Your task to perform on an android device: Clear the shopping cart on bestbuy.com. Add acer predator to the cart on bestbuy.com, then select checkout. Image 0: 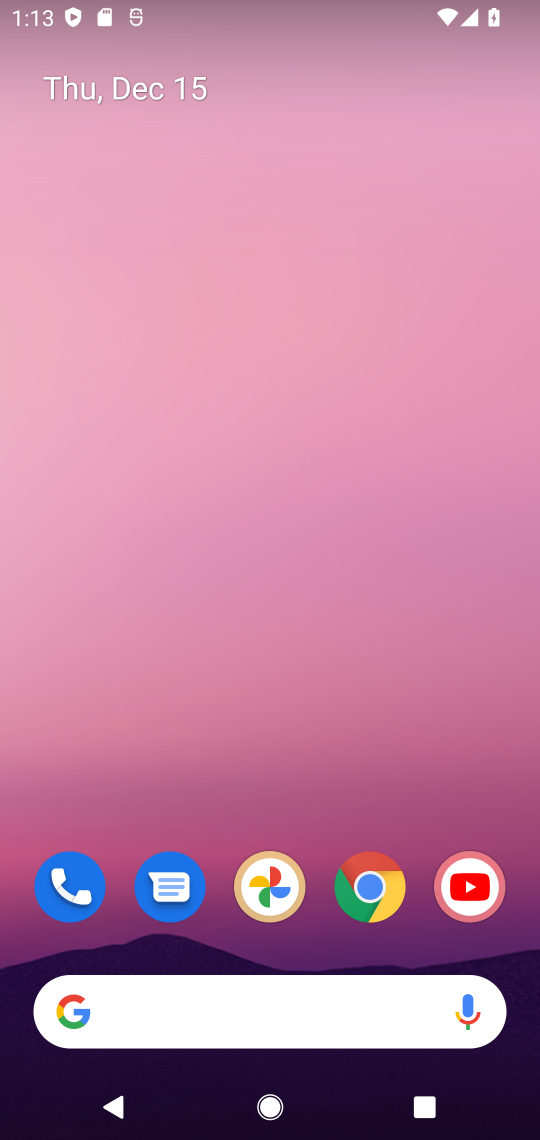
Step 0: click (373, 909)
Your task to perform on an android device: Clear the shopping cart on bestbuy.com. Add acer predator to the cart on bestbuy.com, then select checkout. Image 1: 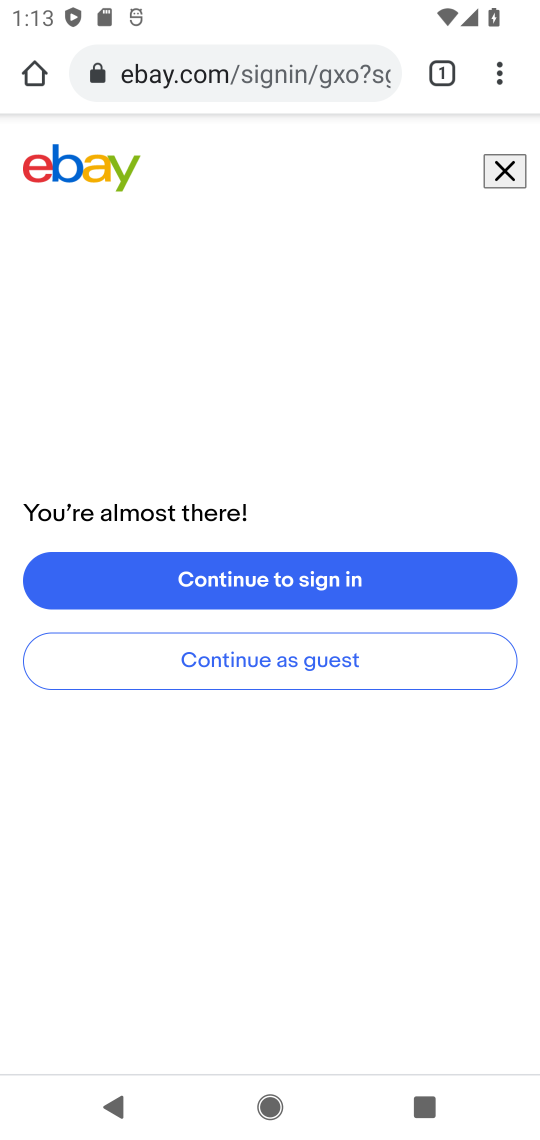
Step 1: click (264, 80)
Your task to perform on an android device: Clear the shopping cart on bestbuy.com. Add acer predator to the cart on bestbuy.com, then select checkout. Image 2: 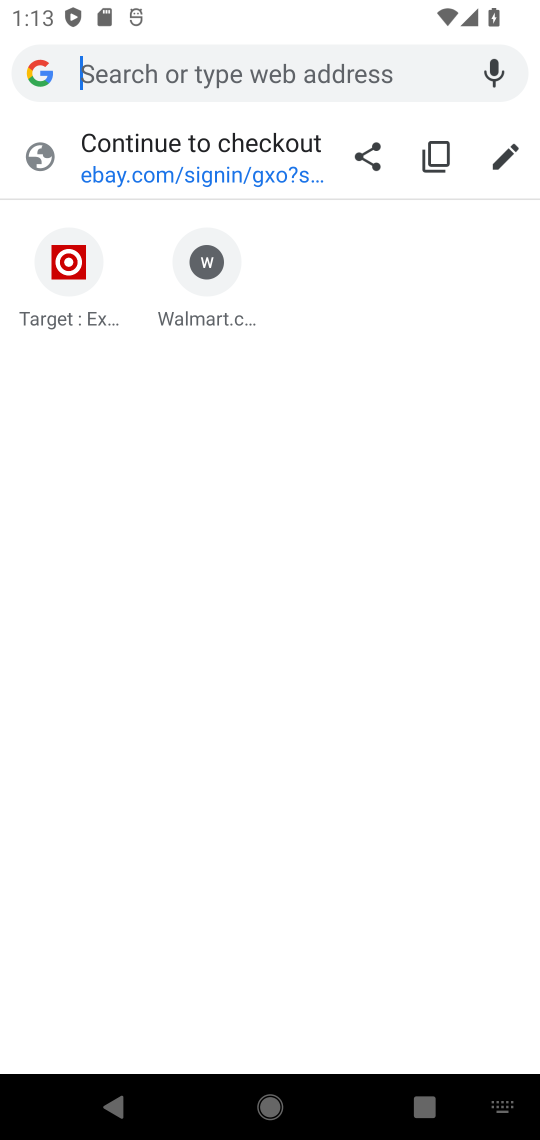
Step 2: type "bestbuy.com"
Your task to perform on an android device: Clear the shopping cart on bestbuy.com. Add acer predator to the cart on bestbuy.com, then select checkout. Image 3: 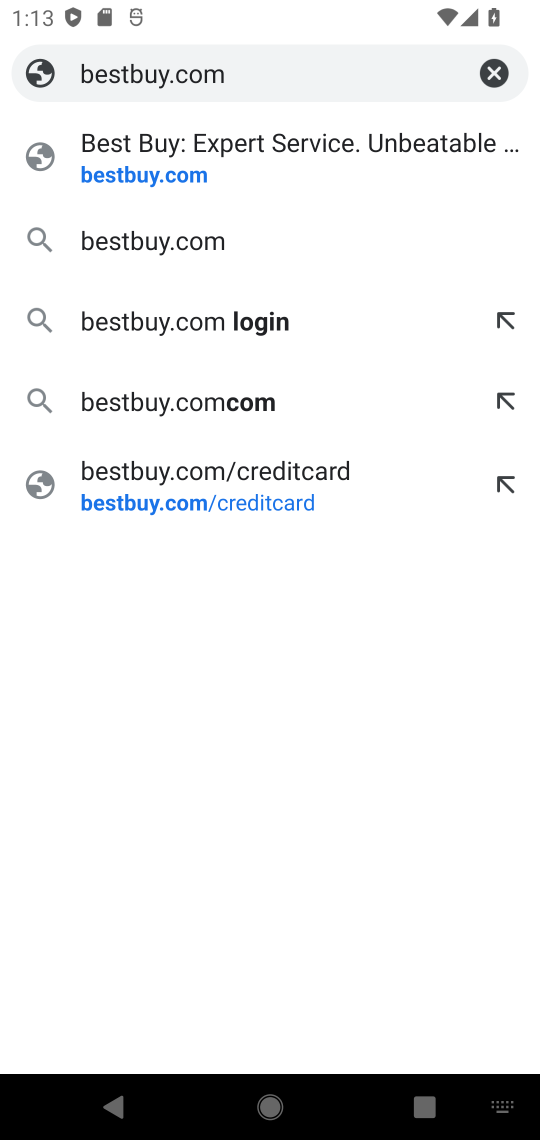
Step 3: click (139, 167)
Your task to perform on an android device: Clear the shopping cart on bestbuy.com. Add acer predator to the cart on bestbuy.com, then select checkout. Image 4: 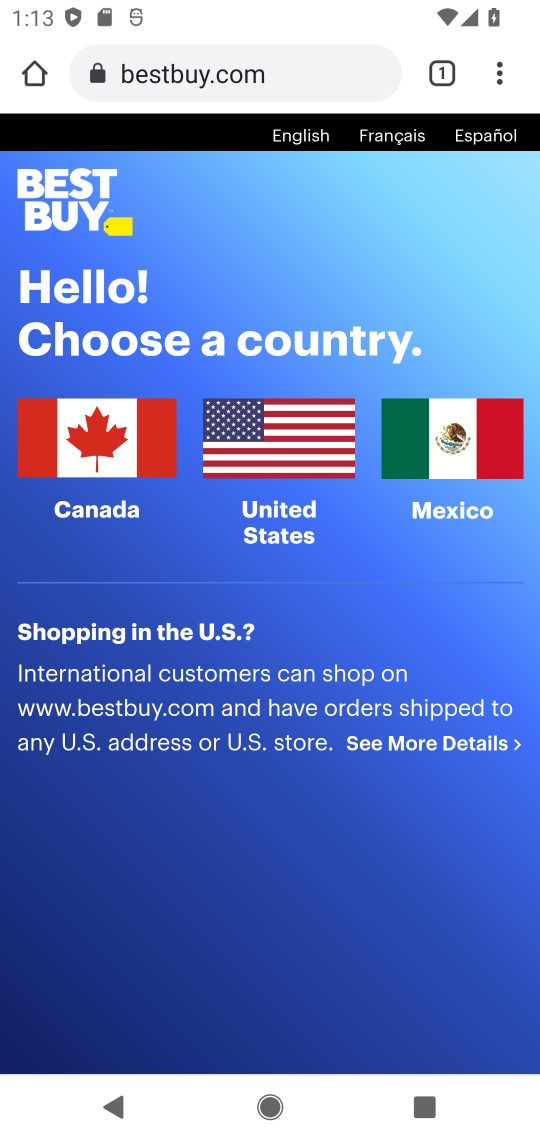
Step 4: click (288, 443)
Your task to perform on an android device: Clear the shopping cart on bestbuy.com. Add acer predator to the cart on bestbuy.com, then select checkout. Image 5: 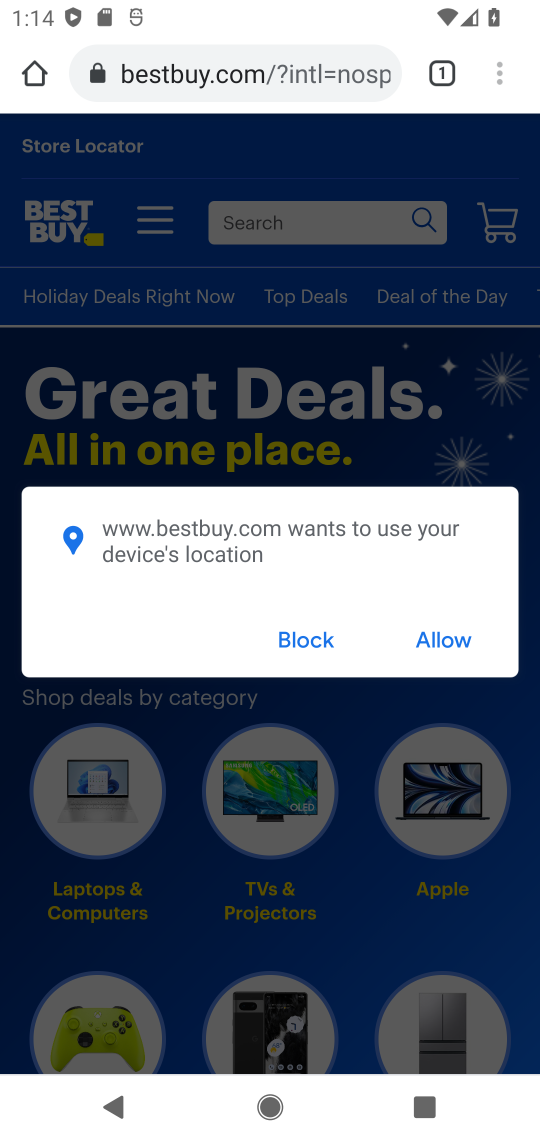
Step 5: click (298, 629)
Your task to perform on an android device: Clear the shopping cart on bestbuy.com. Add acer predator to the cart on bestbuy.com, then select checkout. Image 6: 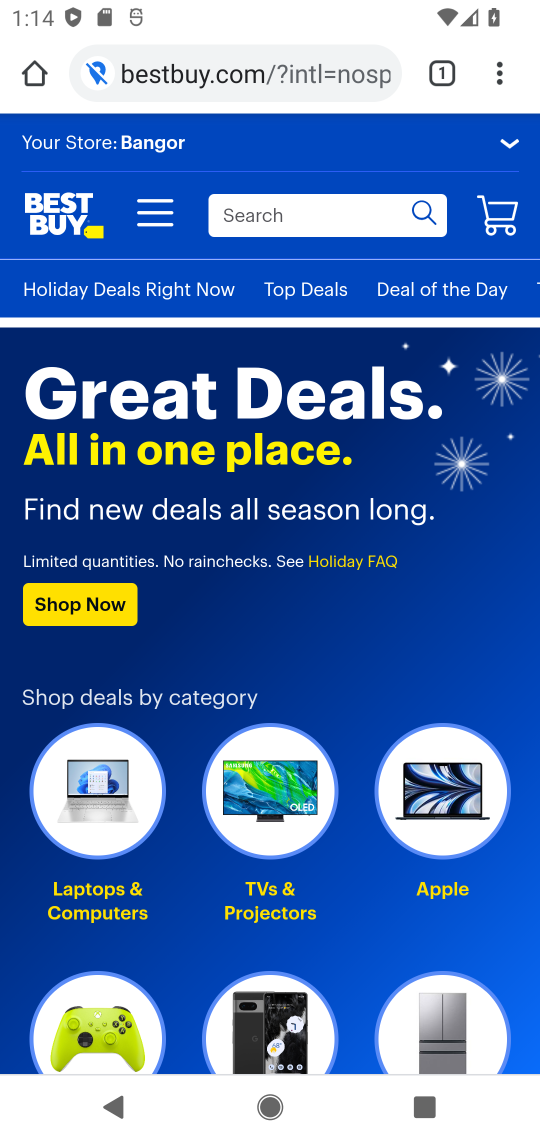
Step 6: click (490, 224)
Your task to perform on an android device: Clear the shopping cart on bestbuy.com. Add acer predator to the cart on bestbuy.com, then select checkout. Image 7: 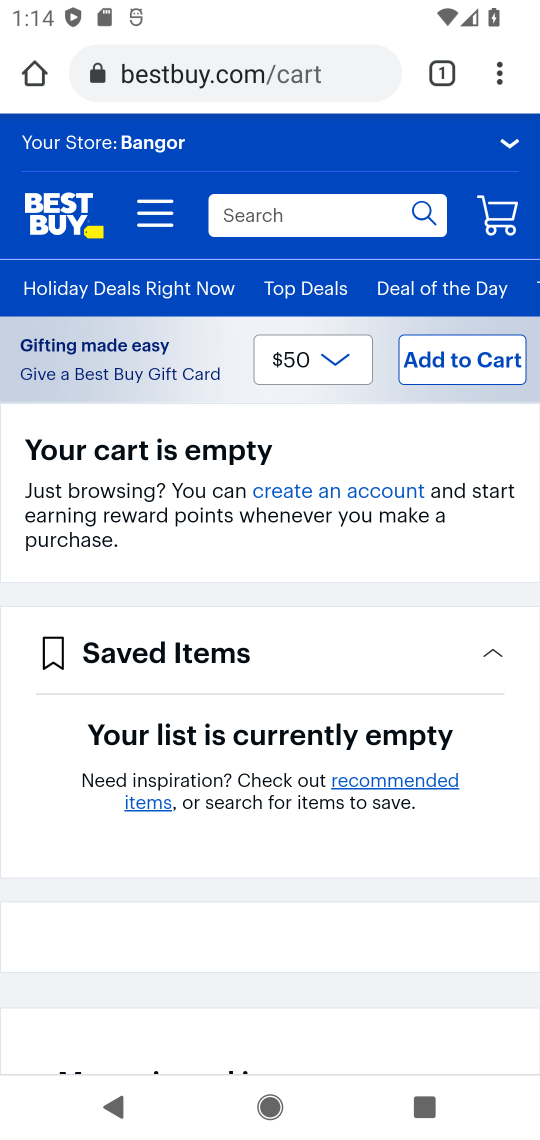
Step 7: click (237, 205)
Your task to perform on an android device: Clear the shopping cart on bestbuy.com. Add acer predator to the cart on bestbuy.com, then select checkout. Image 8: 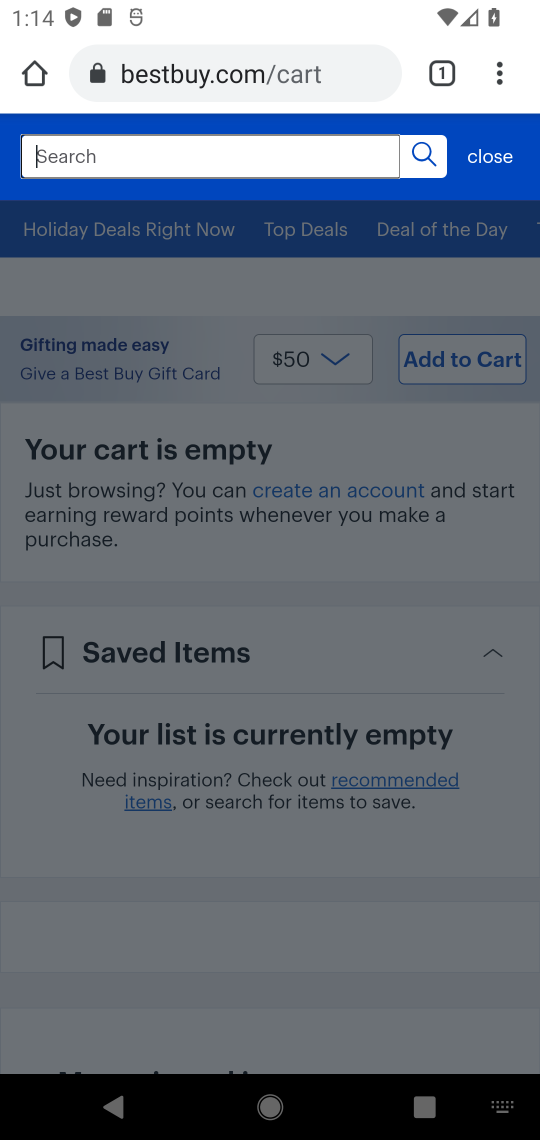
Step 8: type "acer predator"
Your task to perform on an android device: Clear the shopping cart on bestbuy.com. Add acer predator to the cart on bestbuy.com, then select checkout. Image 9: 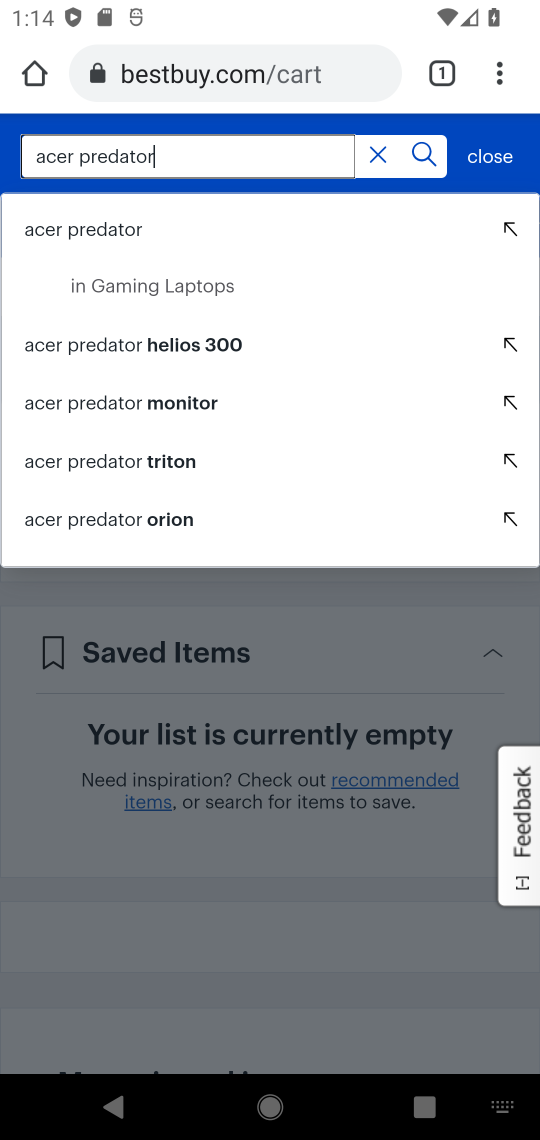
Step 9: click (65, 228)
Your task to perform on an android device: Clear the shopping cart on bestbuy.com. Add acer predator to the cart on bestbuy.com, then select checkout. Image 10: 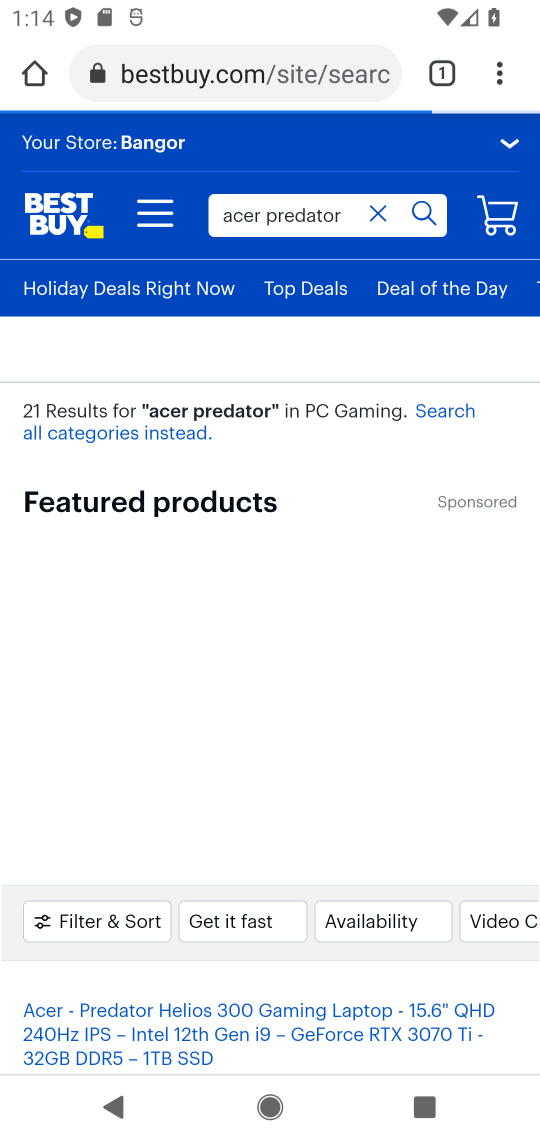
Step 10: drag from (225, 793) to (211, 427)
Your task to perform on an android device: Clear the shopping cart on bestbuy.com. Add acer predator to the cart on bestbuy.com, then select checkout. Image 11: 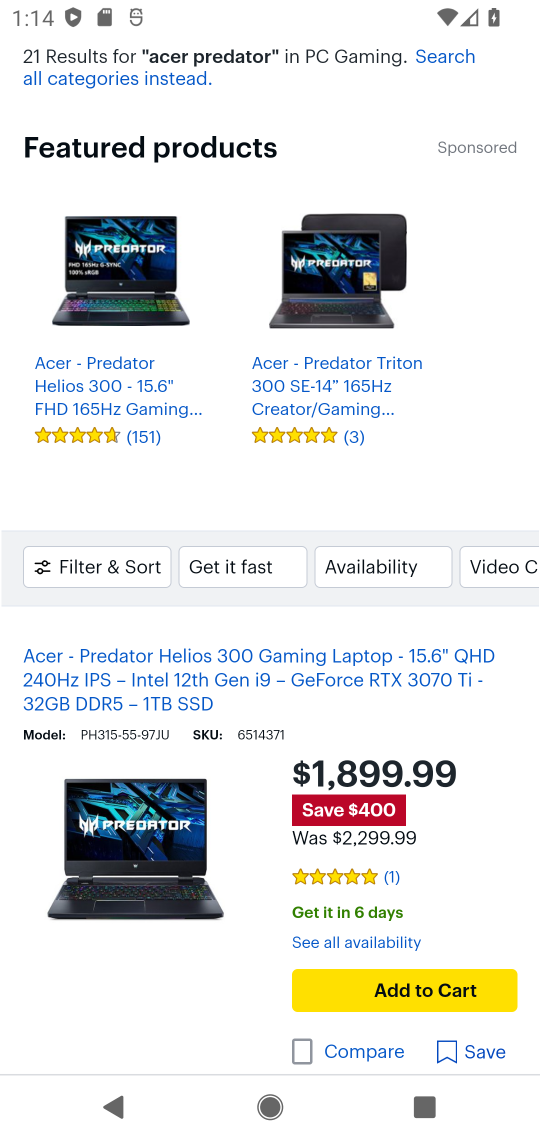
Step 11: drag from (224, 755) to (192, 449)
Your task to perform on an android device: Clear the shopping cart on bestbuy.com. Add acer predator to the cart on bestbuy.com, then select checkout. Image 12: 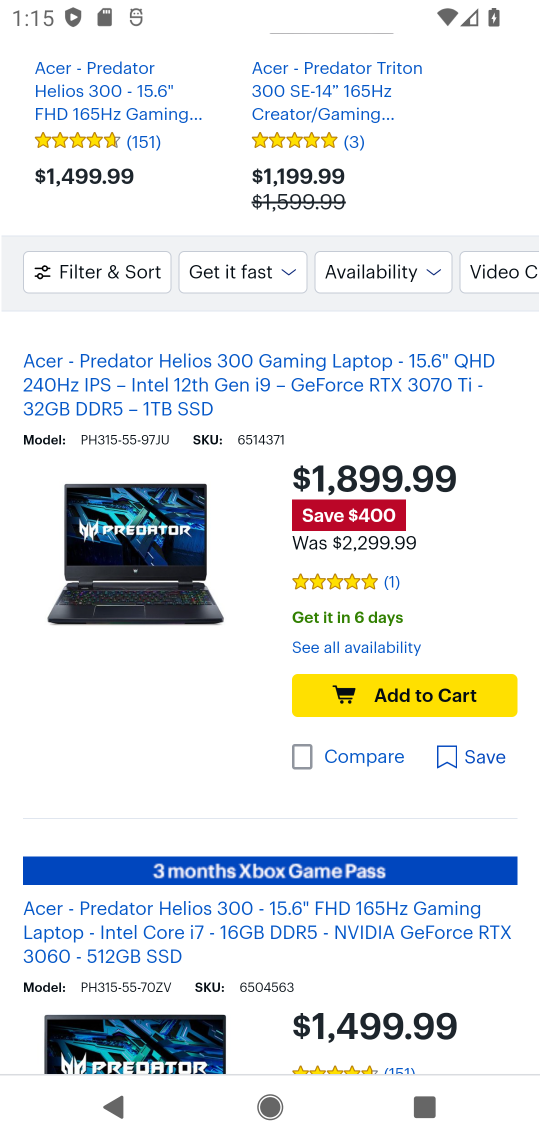
Step 12: click (386, 686)
Your task to perform on an android device: Clear the shopping cart on bestbuy.com. Add acer predator to the cart on bestbuy.com, then select checkout. Image 13: 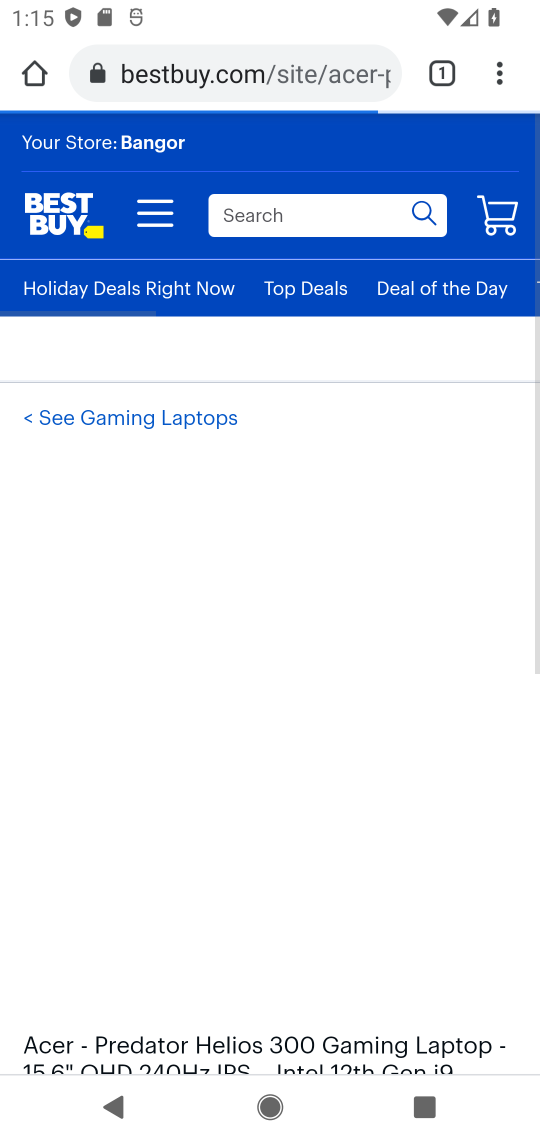
Step 13: click (357, 781)
Your task to perform on an android device: Clear the shopping cart on bestbuy.com. Add acer predator to the cart on bestbuy.com, then select checkout. Image 14: 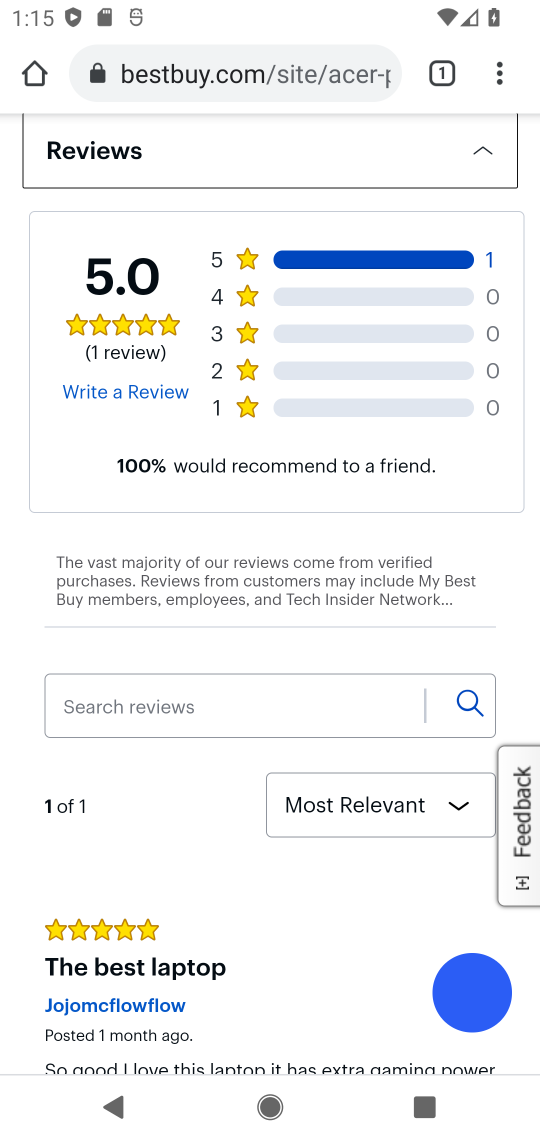
Step 14: press back button
Your task to perform on an android device: Clear the shopping cart on bestbuy.com. Add acer predator to the cart on bestbuy.com, then select checkout. Image 15: 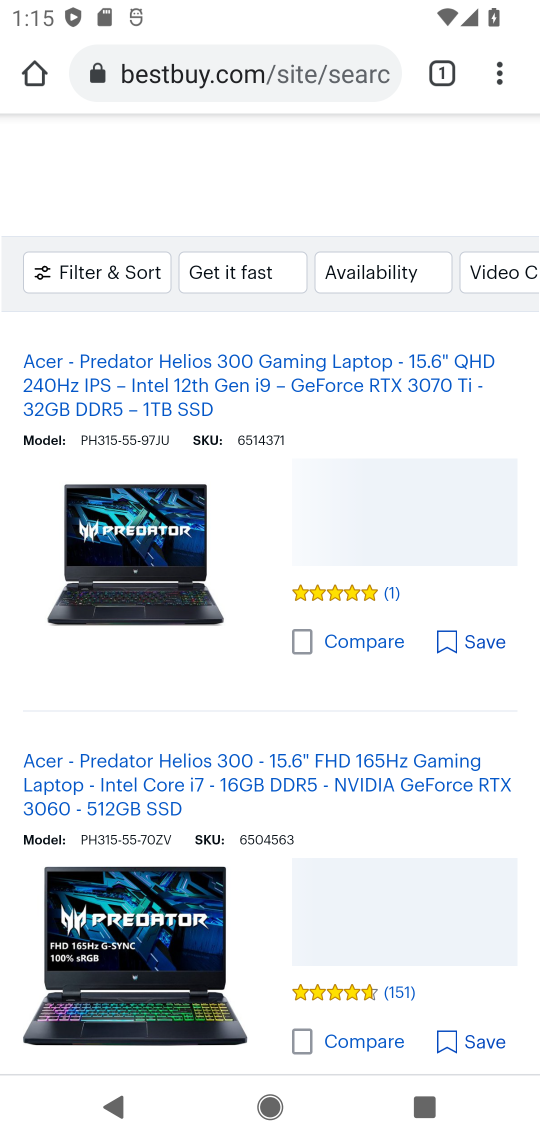
Step 15: click (122, 598)
Your task to perform on an android device: Clear the shopping cart on bestbuy.com. Add acer predator to the cart on bestbuy.com, then select checkout. Image 16: 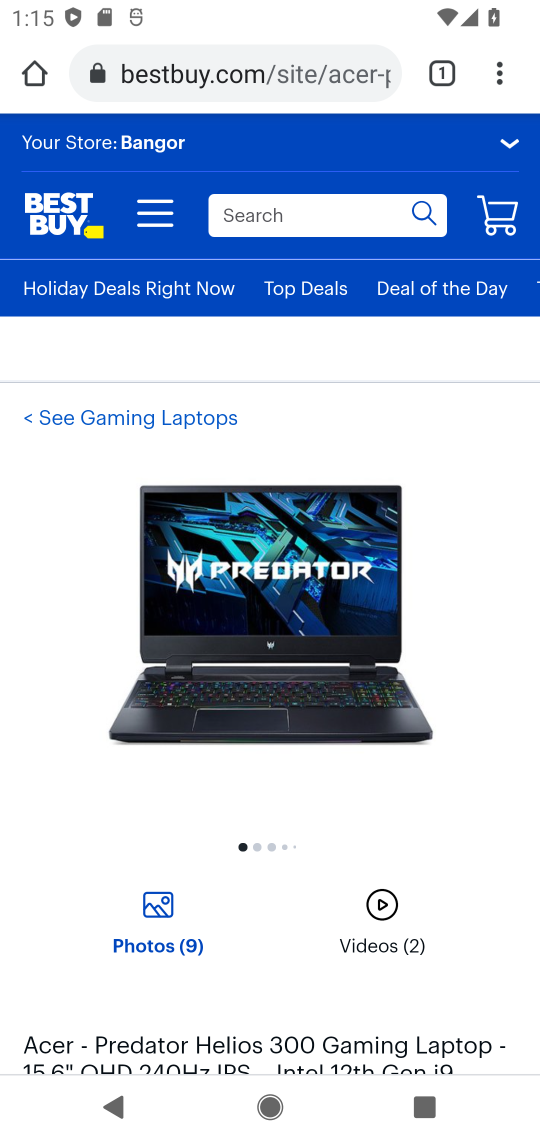
Step 16: drag from (290, 871) to (209, 235)
Your task to perform on an android device: Clear the shopping cart on bestbuy.com. Add acer predator to the cart on bestbuy.com, then select checkout. Image 17: 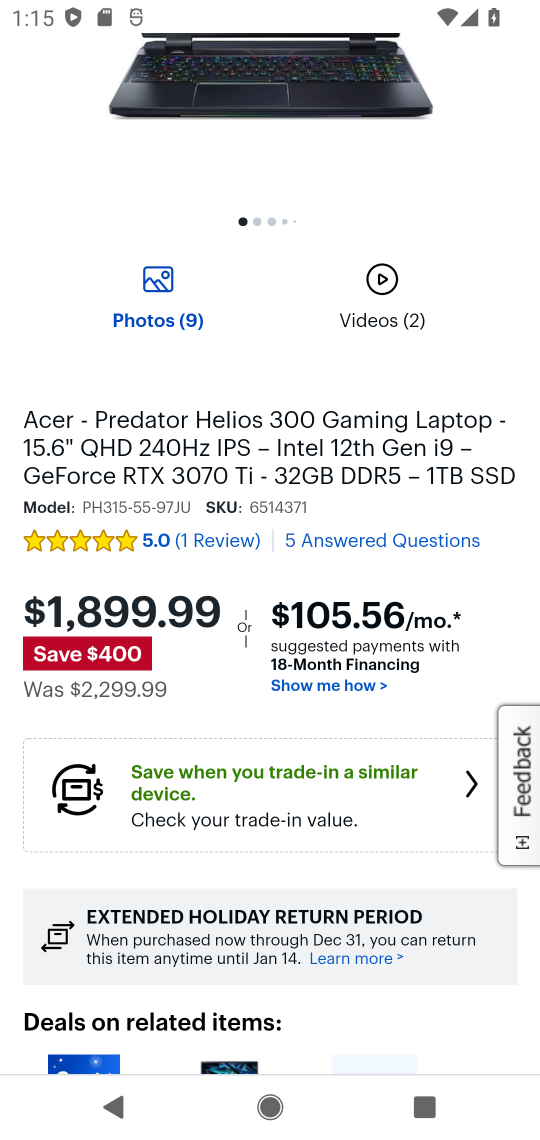
Step 17: drag from (300, 818) to (232, 234)
Your task to perform on an android device: Clear the shopping cart on bestbuy.com. Add acer predator to the cart on bestbuy.com, then select checkout. Image 18: 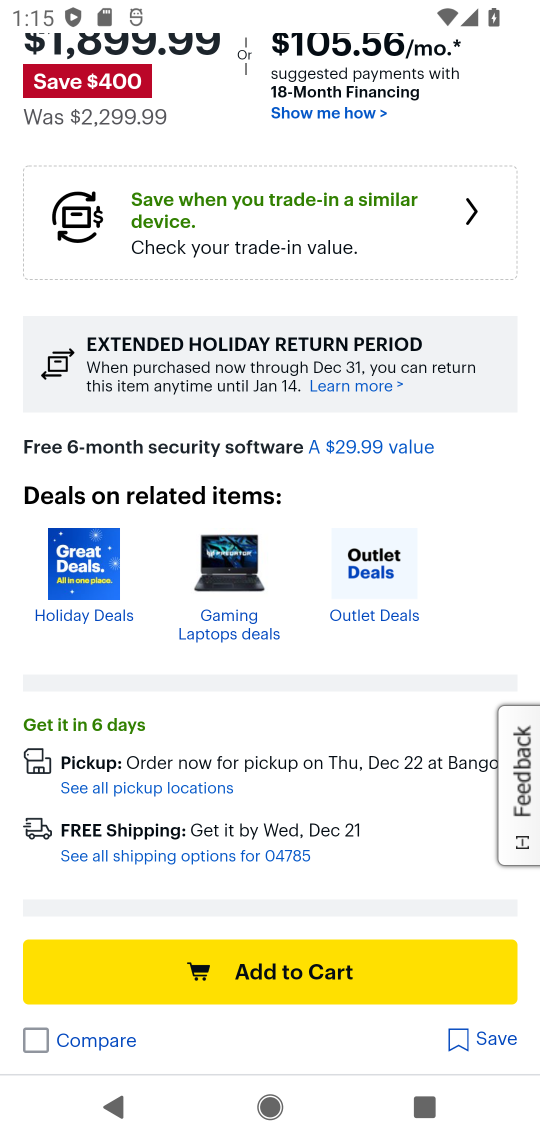
Step 18: click (250, 976)
Your task to perform on an android device: Clear the shopping cart on bestbuy.com. Add acer predator to the cart on bestbuy.com, then select checkout. Image 19: 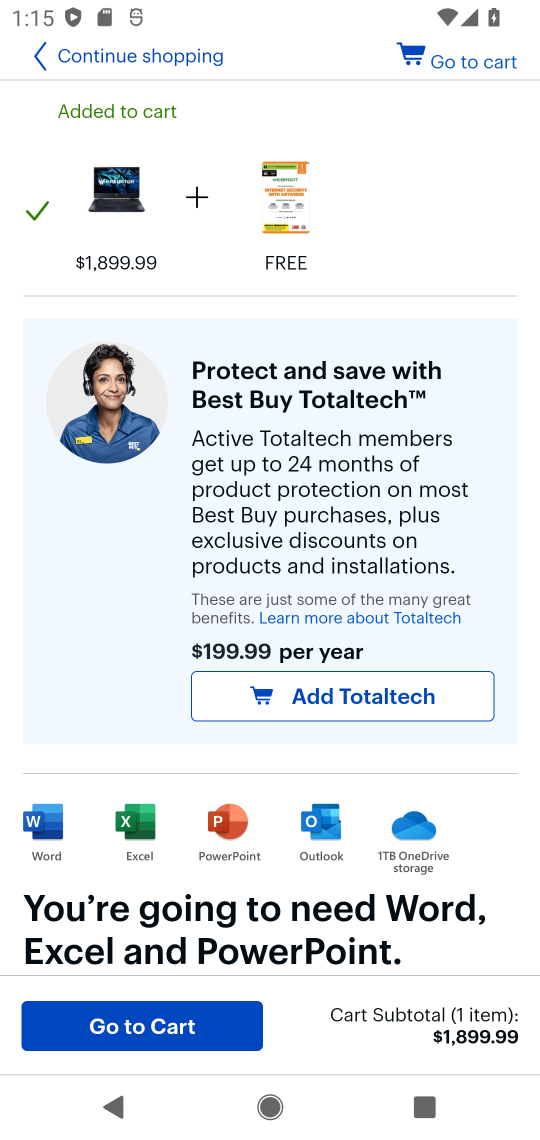
Step 19: click (465, 71)
Your task to perform on an android device: Clear the shopping cart on bestbuy.com. Add acer predator to the cart on bestbuy.com, then select checkout. Image 20: 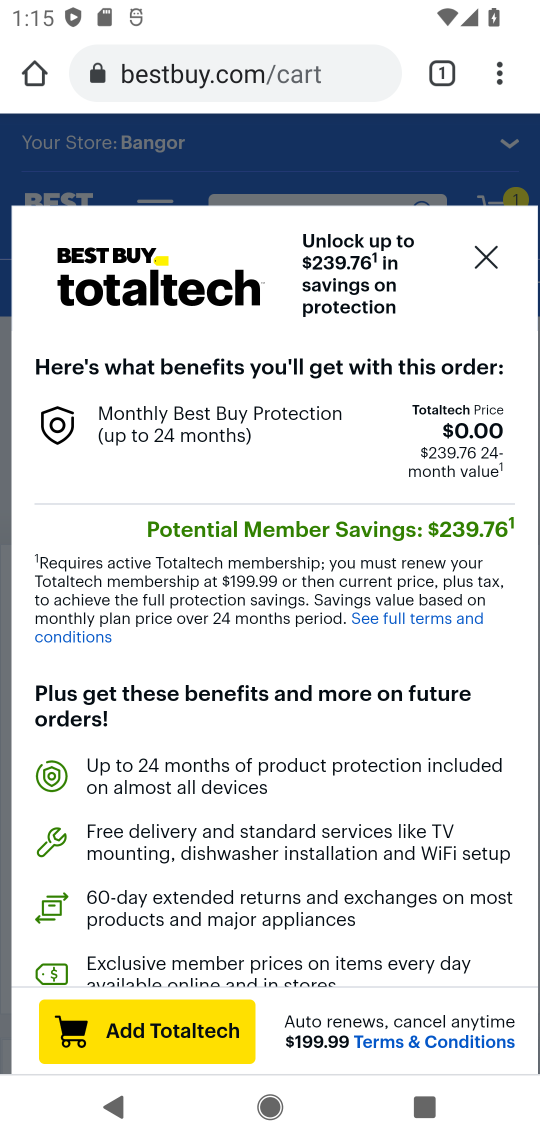
Step 20: click (245, 955)
Your task to perform on an android device: Clear the shopping cart on bestbuy.com. Add acer predator to the cart on bestbuy.com, then select checkout. Image 21: 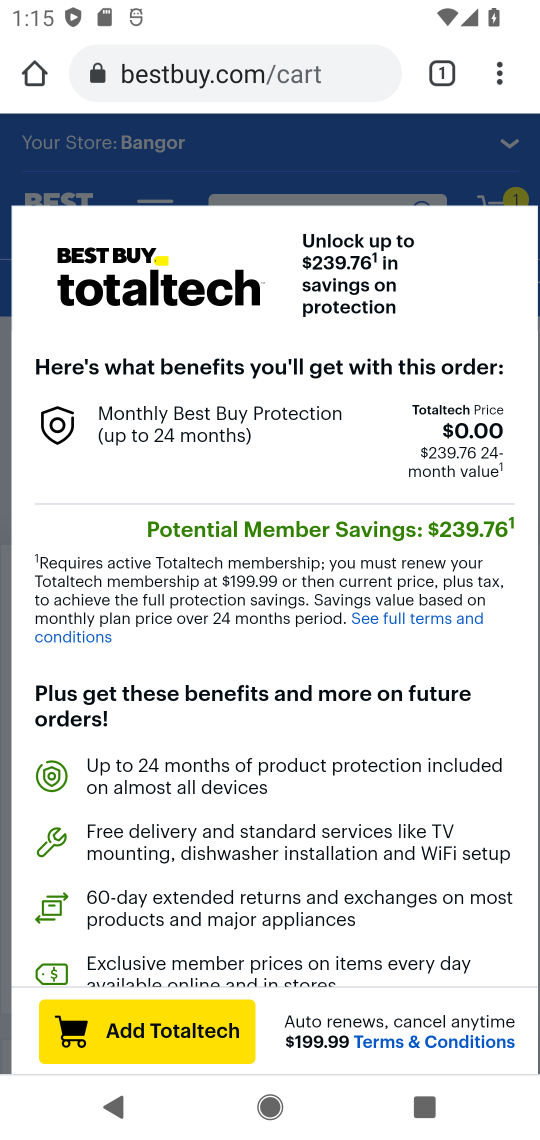
Step 21: click (442, 162)
Your task to perform on an android device: Clear the shopping cart on bestbuy.com. Add acer predator to the cart on bestbuy.com, then select checkout. Image 22: 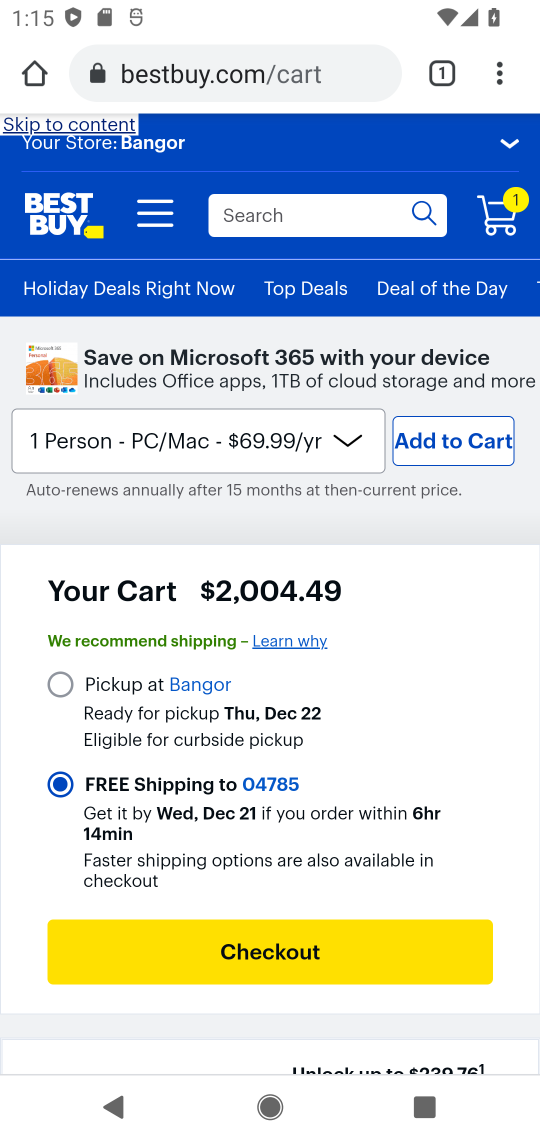
Step 22: click (198, 943)
Your task to perform on an android device: Clear the shopping cart on bestbuy.com. Add acer predator to the cart on bestbuy.com, then select checkout. Image 23: 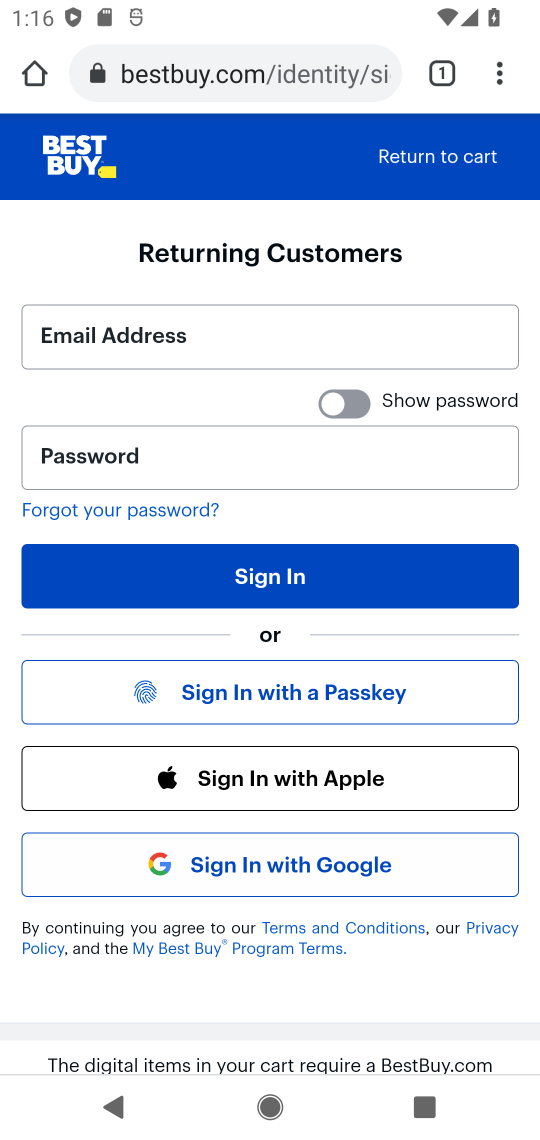
Step 23: task complete